Your task to perform on an android device: Check the weather Image 0: 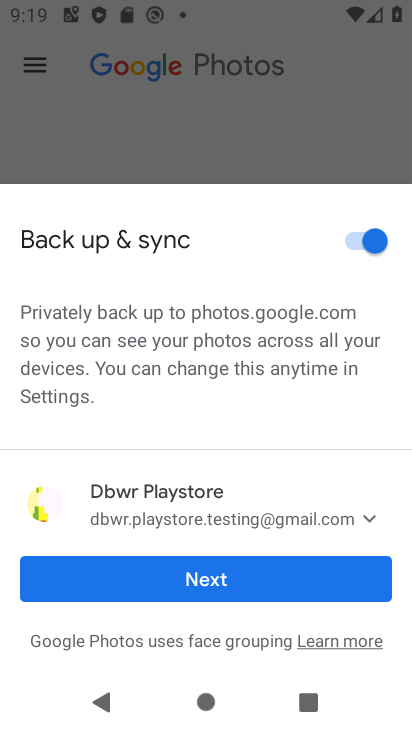
Step 0: press home button
Your task to perform on an android device: Check the weather Image 1: 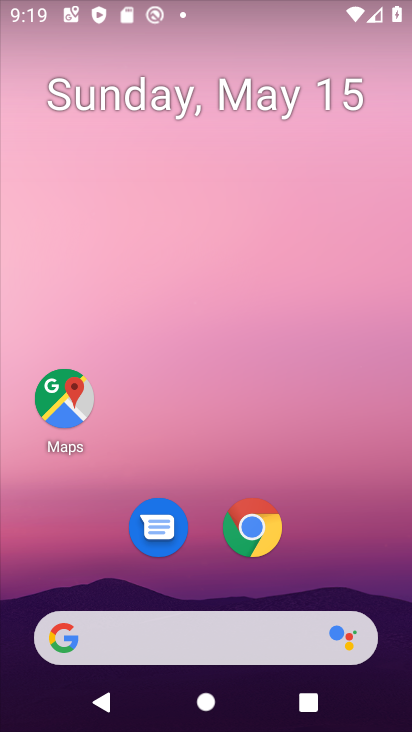
Step 1: click (295, 636)
Your task to perform on an android device: Check the weather Image 2: 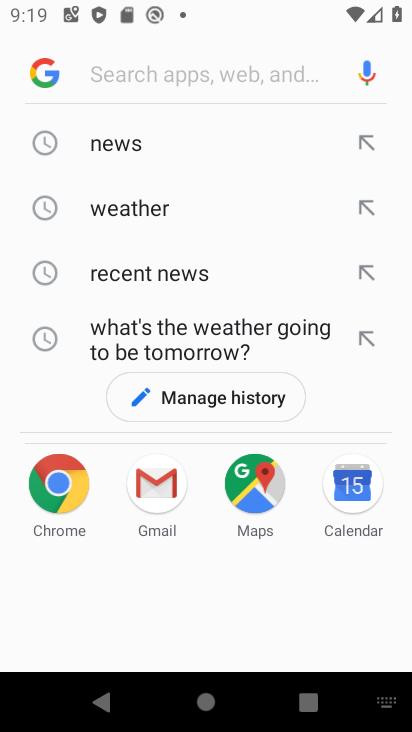
Step 2: click (295, 636)
Your task to perform on an android device: Check the weather Image 3: 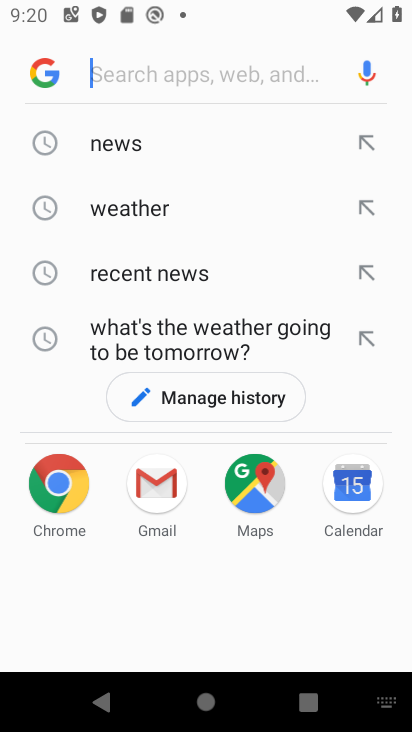
Step 3: click (120, 213)
Your task to perform on an android device: Check the weather Image 4: 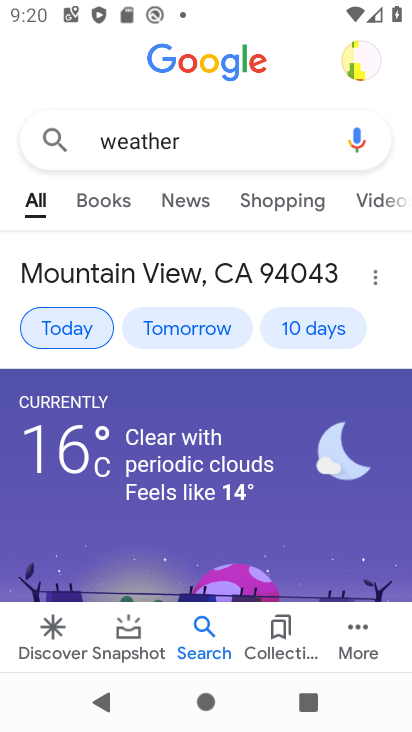
Step 4: task complete